Your task to perform on an android device: see creations saved in the google photos Image 0: 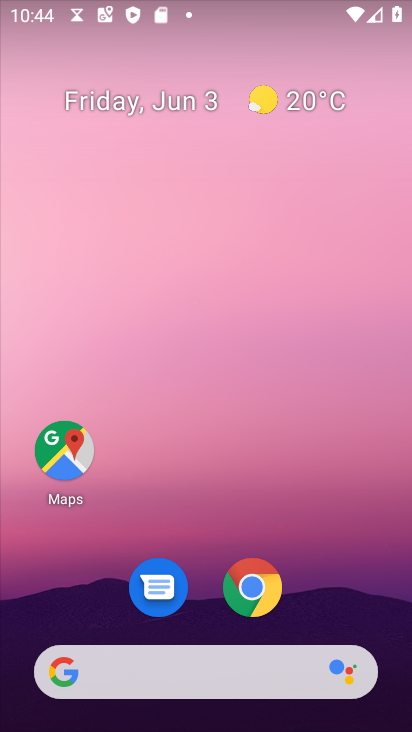
Step 0: drag from (360, 572) to (129, 48)
Your task to perform on an android device: see creations saved in the google photos Image 1: 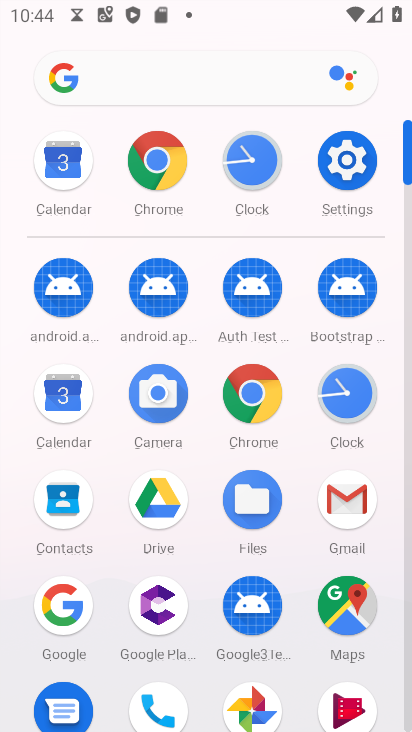
Step 1: drag from (297, 509) to (234, 40)
Your task to perform on an android device: see creations saved in the google photos Image 2: 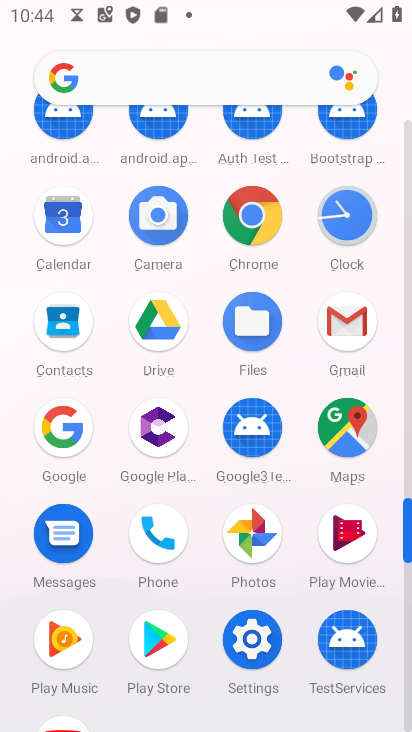
Step 2: click (257, 554)
Your task to perform on an android device: see creations saved in the google photos Image 3: 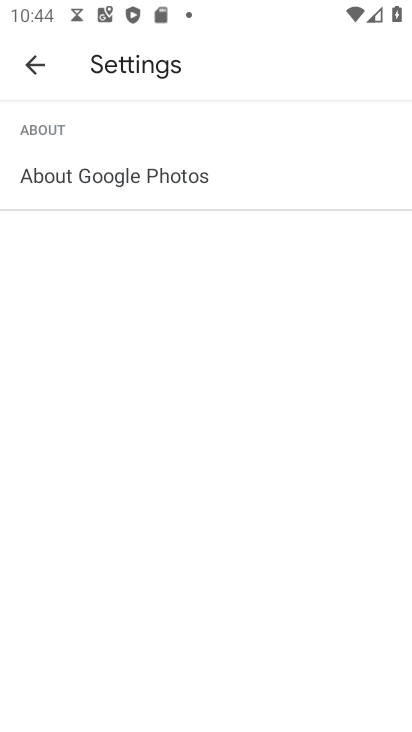
Step 3: click (19, 73)
Your task to perform on an android device: see creations saved in the google photos Image 4: 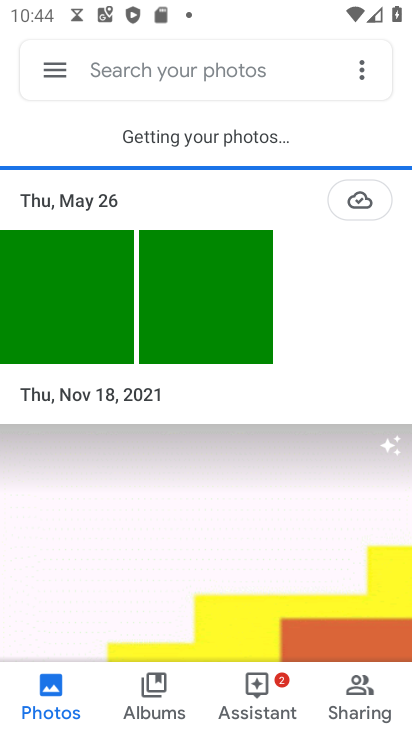
Step 4: click (205, 63)
Your task to perform on an android device: see creations saved in the google photos Image 5: 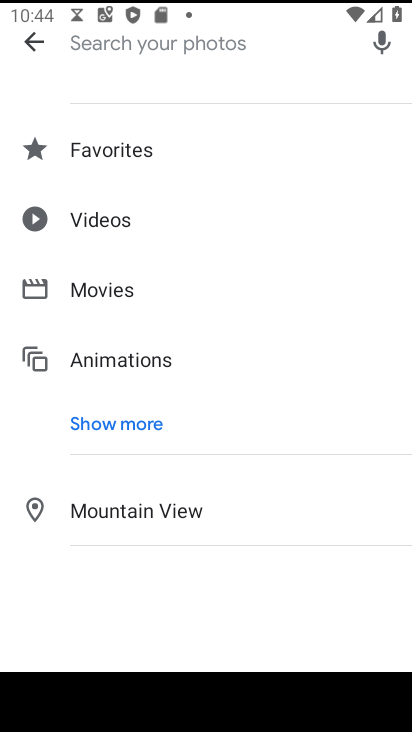
Step 5: type "creations"
Your task to perform on an android device: see creations saved in the google photos Image 6: 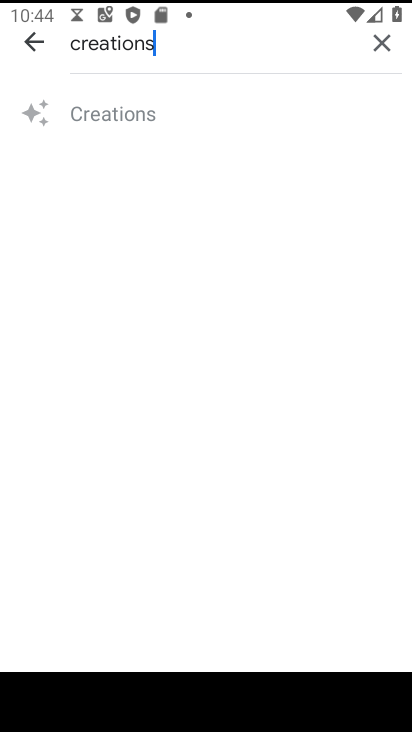
Step 6: click (119, 106)
Your task to perform on an android device: see creations saved in the google photos Image 7: 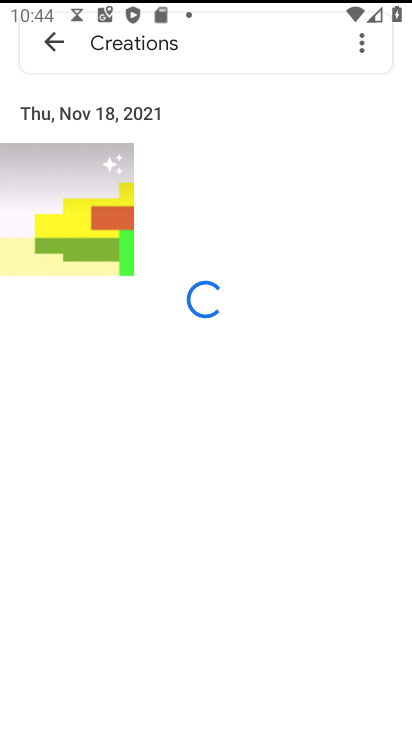
Step 7: task complete